Your task to perform on an android device: delete a single message in the gmail app Image 0: 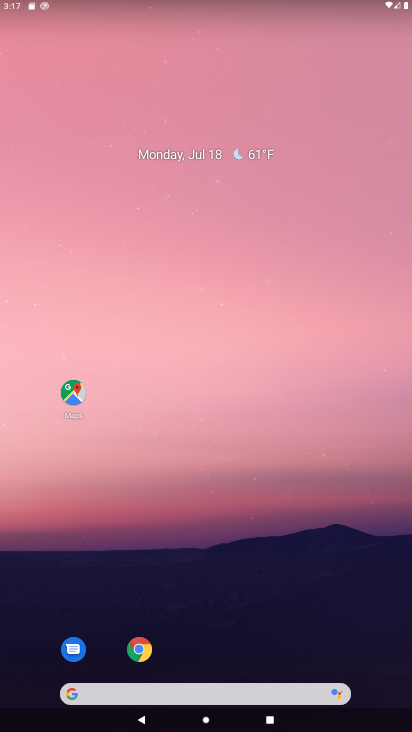
Step 0: drag from (284, 580) to (274, 180)
Your task to perform on an android device: delete a single message in the gmail app Image 1: 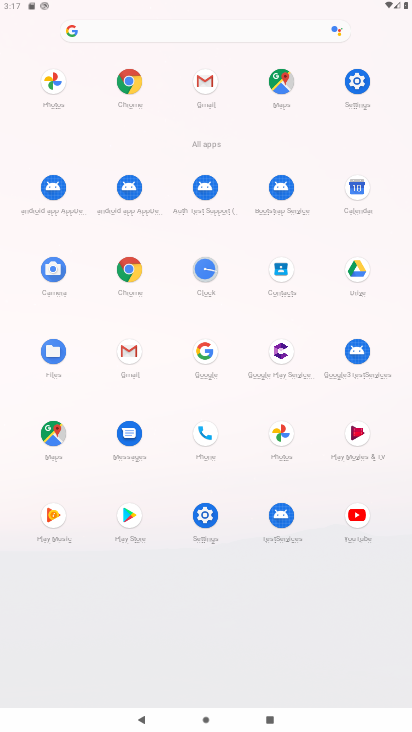
Step 1: click (212, 82)
Your task to perform on an android device: delete a single message in the gmail app Image 2: 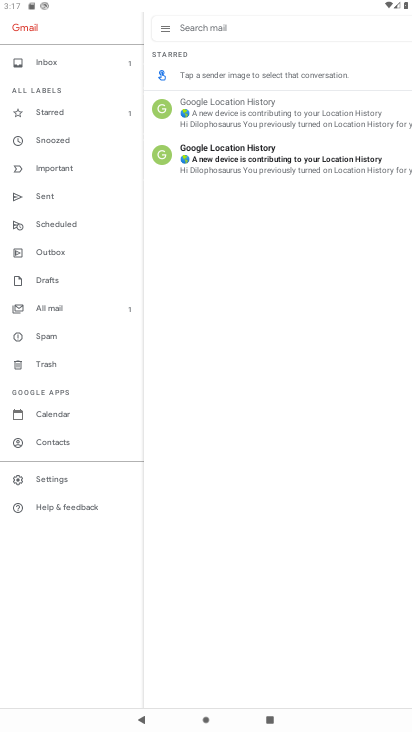
Step 2: click (47, 314)
Your task to perform on an android device: delete a single message in the gmail app Image 3: 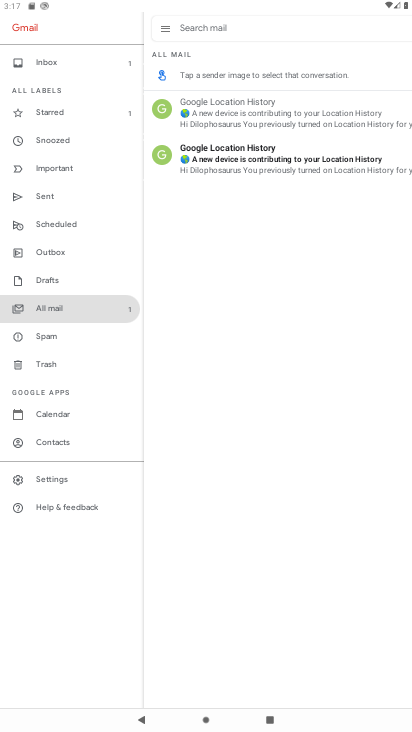
Step 3: click (160, 110)
Your task to perform on an android device: delete a single message in the gmail app Image 4: 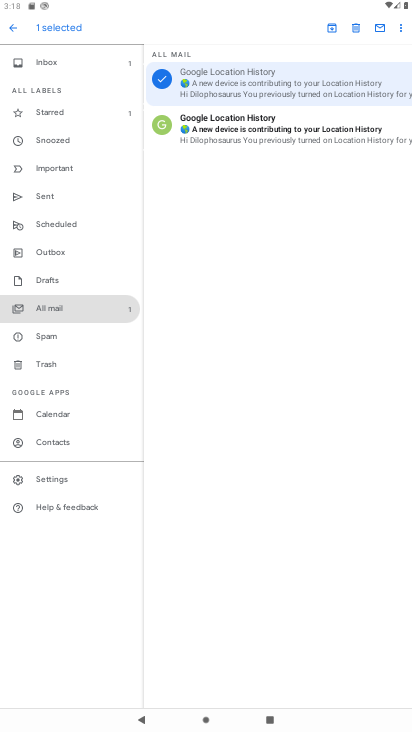
Step 4: click (348, 23)
Your task to perform on an android device: delete a single message in the gmail app Image 5: 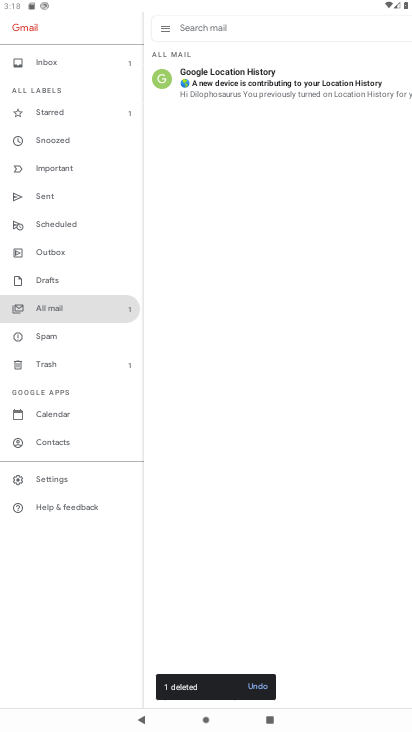
Step 5: task complete